Your task to perform on an android device: turn off wifi Image 0: 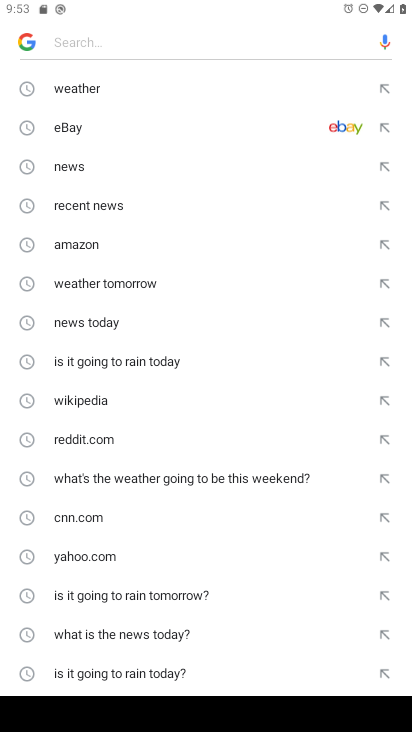
Step 0: press home button
Your task to perform on an android device: turn off wifi Image 1: 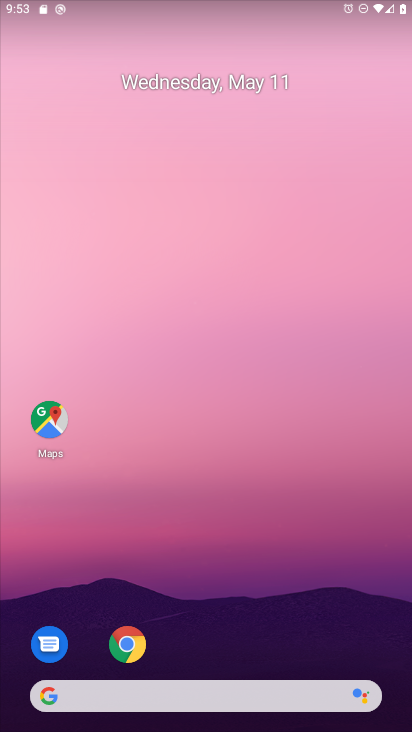
Step 1: drag from (247, 590) to (151, 46)
Your task to perform on an android device: turn off wifi Image 2: 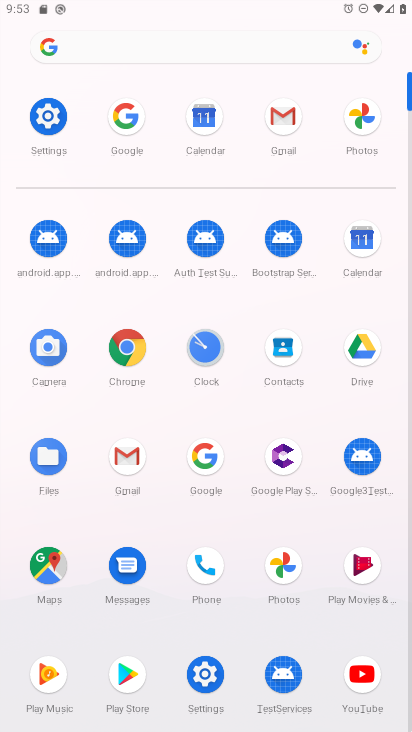
Step 2: click (43, 117)
Your task to perform on an android device: turn off wifi Image 3: 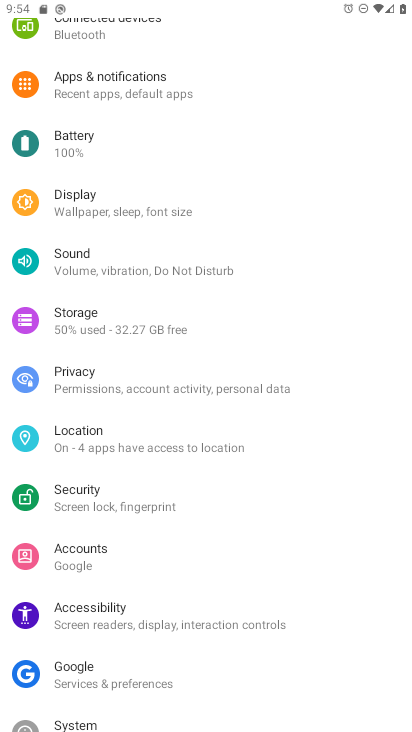
Step 3: drag from (223, 132) to (268, 452)
Your task to perform on an android device: turn off wifi Image 4: 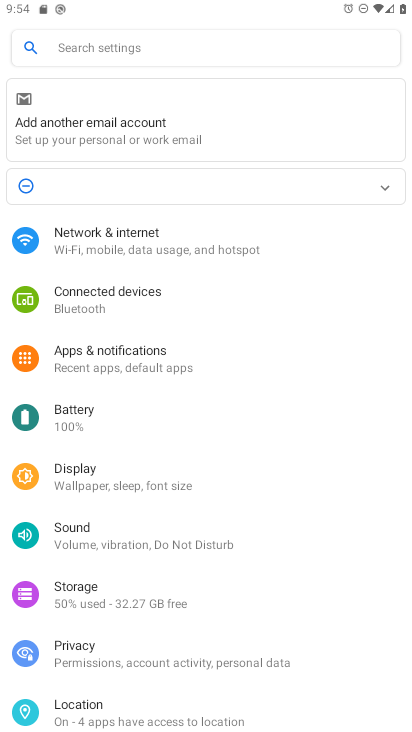
Step 4: click (115, 234)
Your task to perform on an android device: turn off wifi Image 5: 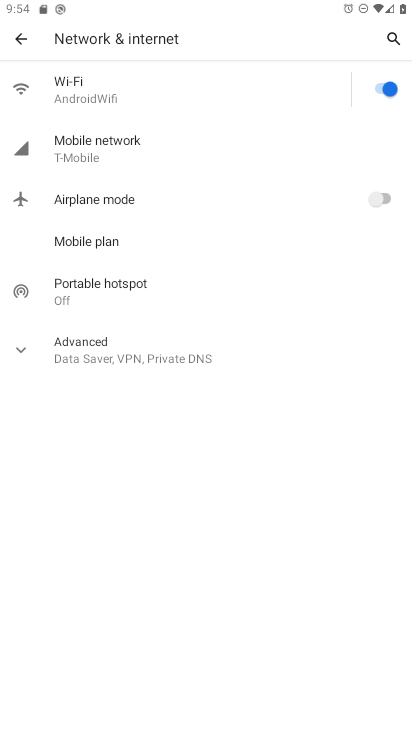
Step 5: click (390, 86)
Your task to perform on an android device: turn off wifi Image 6: 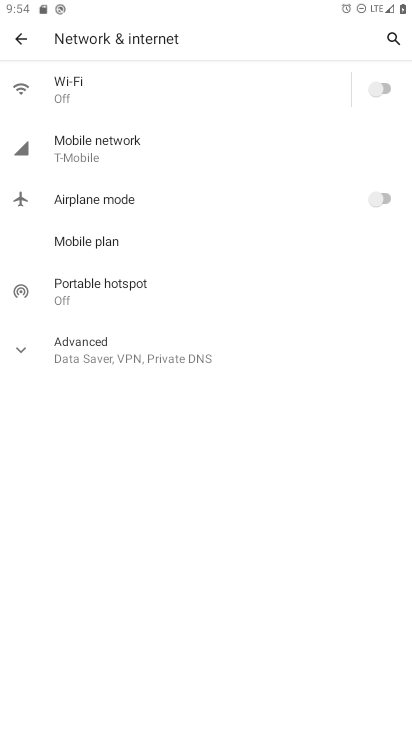
Step 6: task complete